Your task to perform on an android device: toggle notifications settings in the gmail app Image 0: 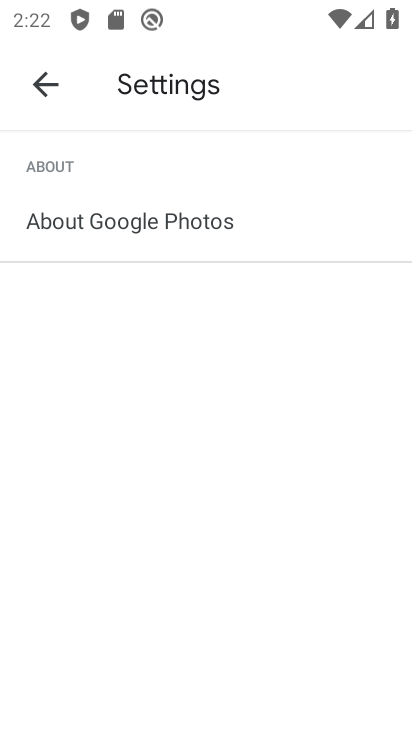
Step 0: press home button
Your task to perform on an android device: toggle notifications settings in the gmail app Image 1: 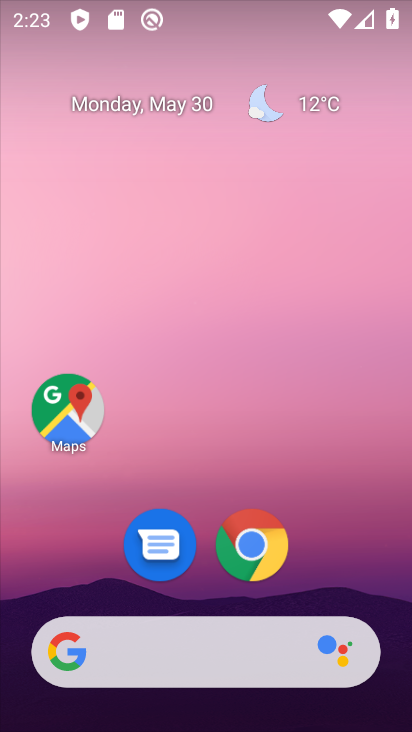
Step 1: drag from (202, 607) to (176, 305)
Your task to perform on an android device: toggle notifications settings in the gmail app Image 2: 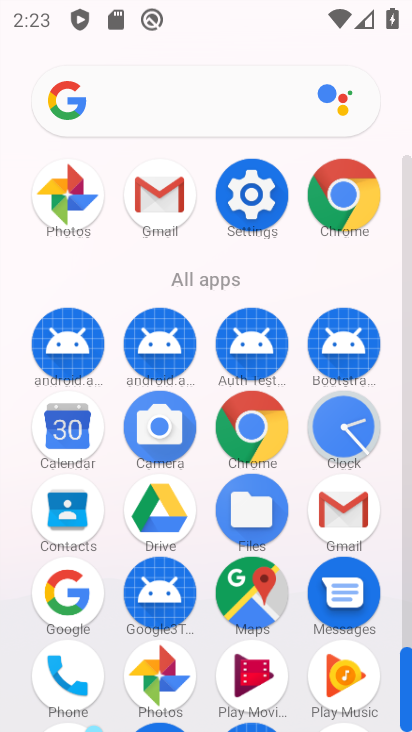
Step 2: click (154, 163)
Your task to perform on an android device: toggle notifications settings in the gmail app Image 3: 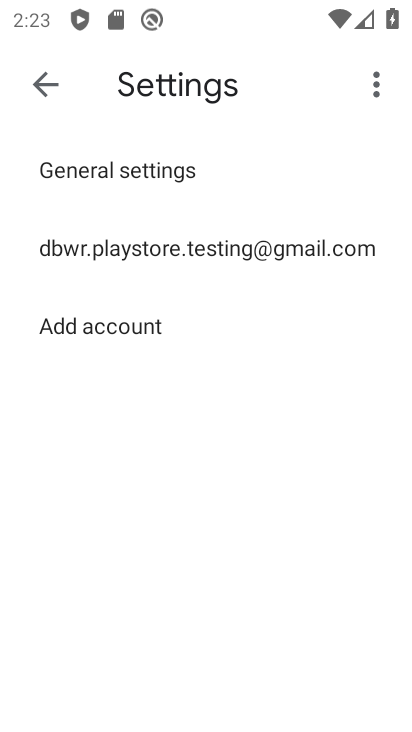
Step 3: click (36, 100)
Your task to perform on an android device: toggle notifications settings in the gmail app Image 4: 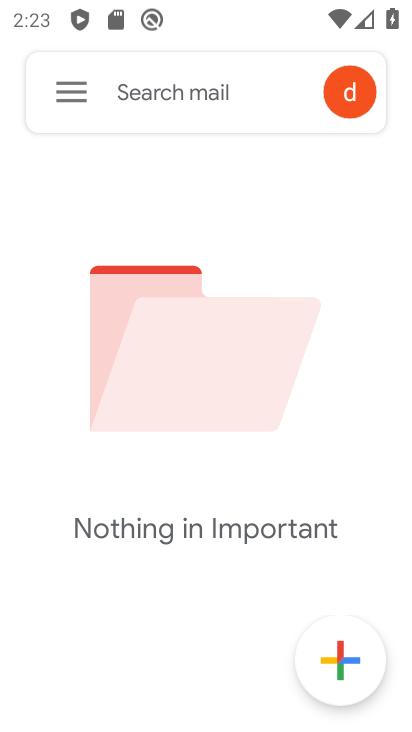
Step 4: click (36, 100)
Your task to perform on an android device: toggle notifications settings in the gmail app Image 5: 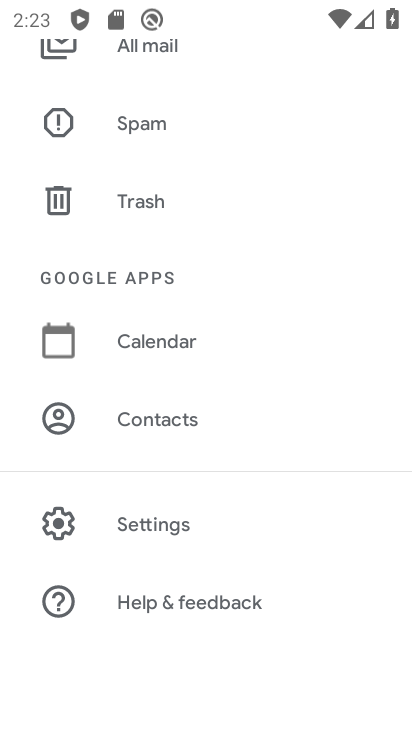
Step 5: click (122, 535)
Your task to perform on an android device: toggle notifications settings in the gmail app Image 6: 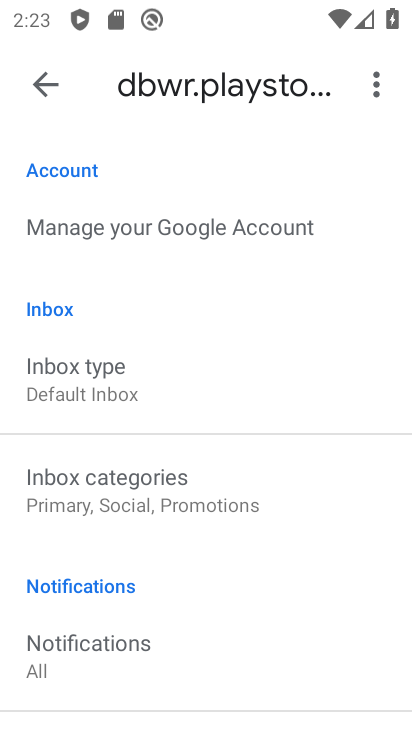
Step 6: click (109, 666)
Your task to perform on an android device: toggle notifications settings in the gmail app Image 7: 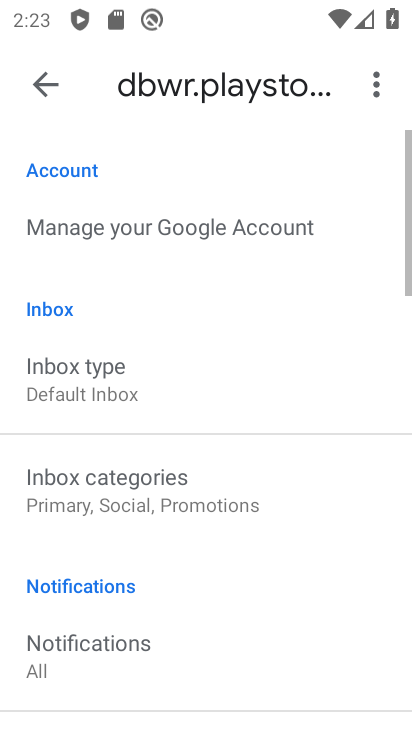
Step 7: click (32, 655)
Your task to perform on an android device: toggle notifications settings in the gmail app Image 8: 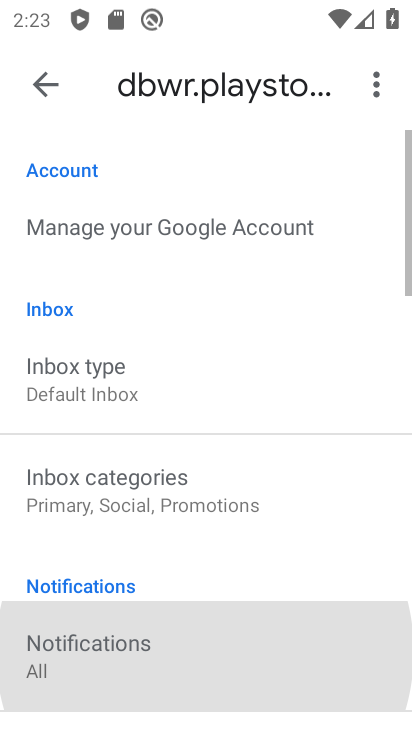
Step 8: click (32, 655)
Your task to perform on an android device: toggle notifications settings in the gmail app Image 9: 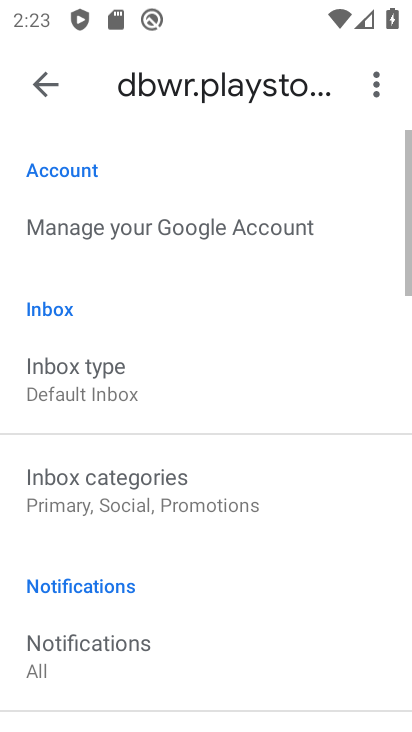
Step 9: click (143, 646)
Your task to perform on an android device: toggle notifications settings in the gmail app Image 10: 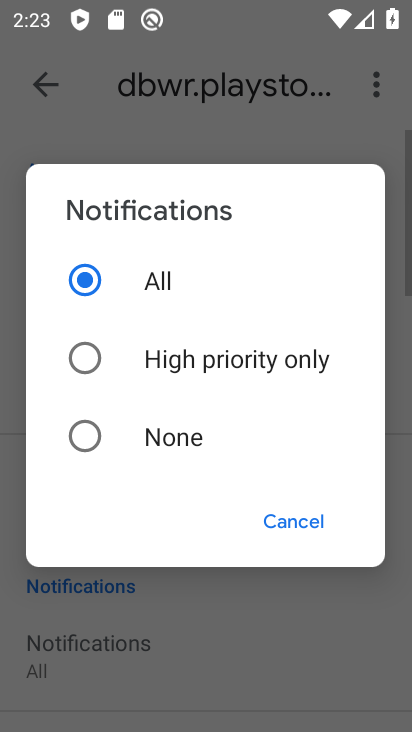
Step 10: click (92, 674)
Your task to perform on an android device: toggle notifications settings in the gmail app Image 11: 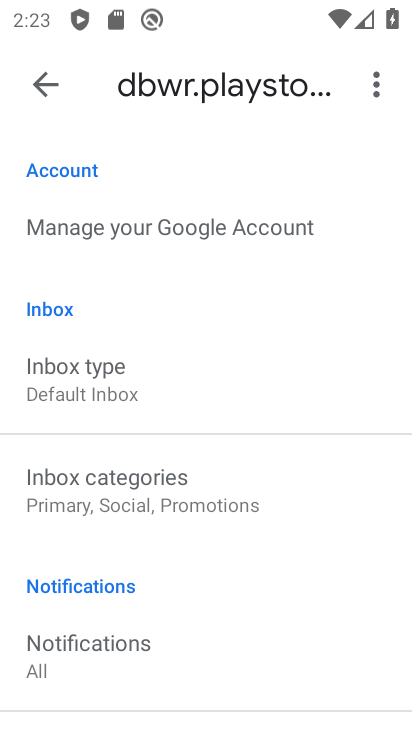
Step 11: click (297, 308)
Your task to perform on an android device: toggle notifications settings in the gmail app Image 12: 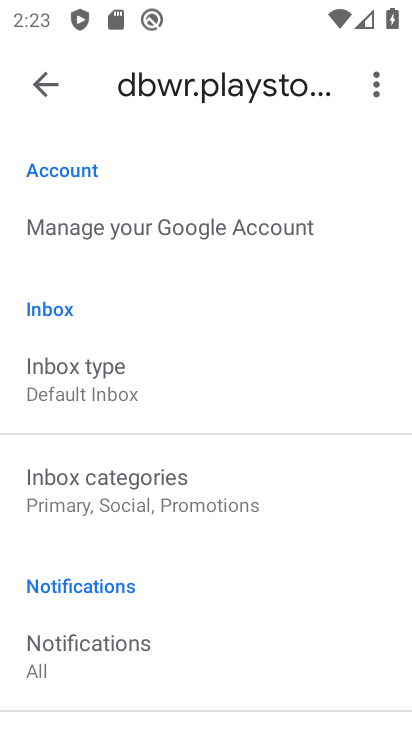
Step 12: click (141, 638)
Your task to perform on an android device: toggle notifications settings in the gmail app Image 13: 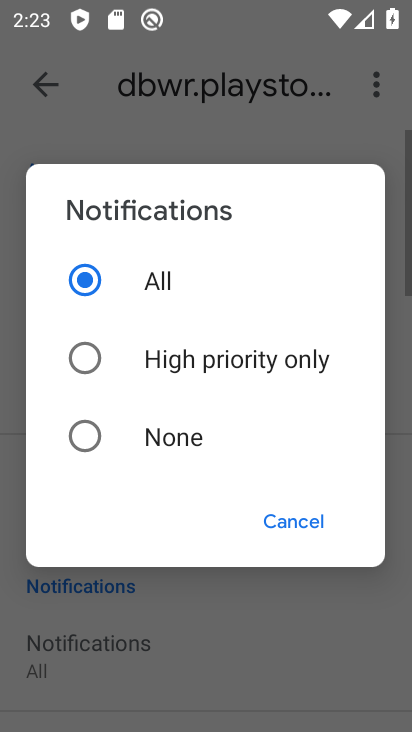
Step 13: click (258, 353)
Your task to perform on an android device: toggle notifications settings in the gmail app Image 14: 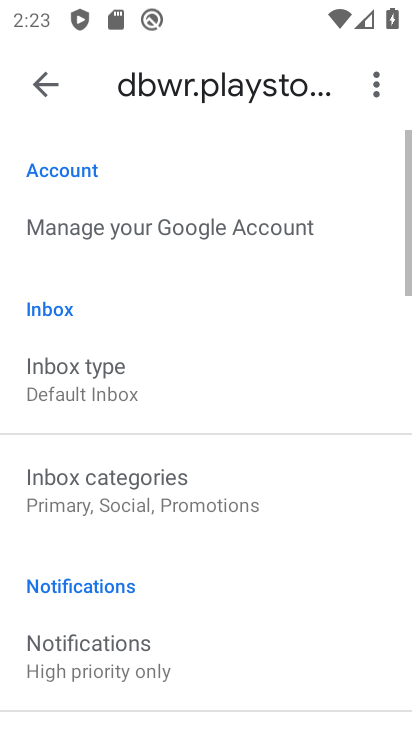
Step 14: task complete